Your task to perform on an android device: Do I have any events today? Image 0: 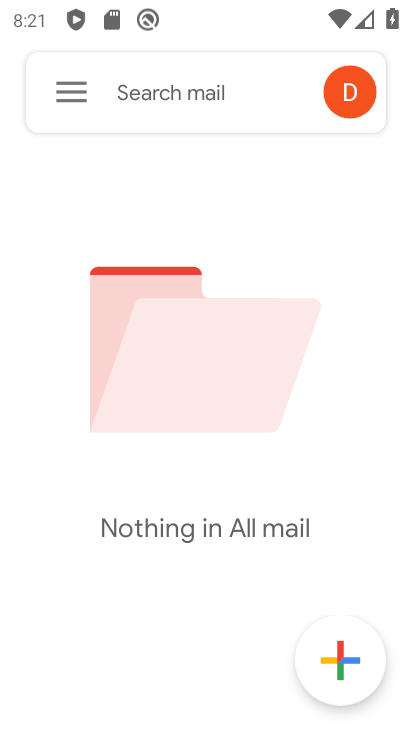
Step 0: press home button
Your task to perform on an android device: Do I have any events today? Image 1: 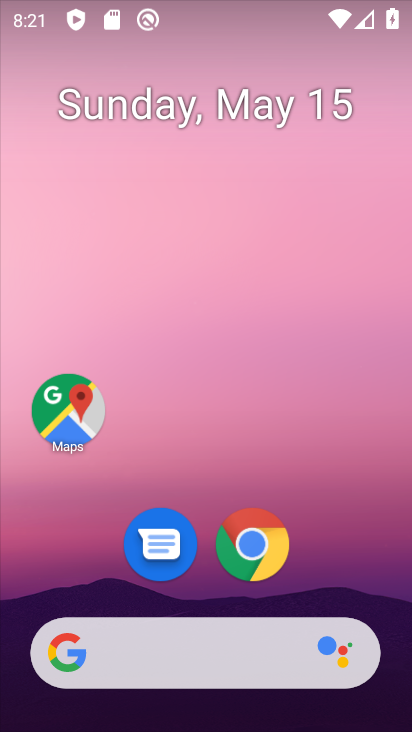
Step 1: drag from (215, 601) to (350, 156)
Your task to perform on an android device: Do I have any events today? Image 2: 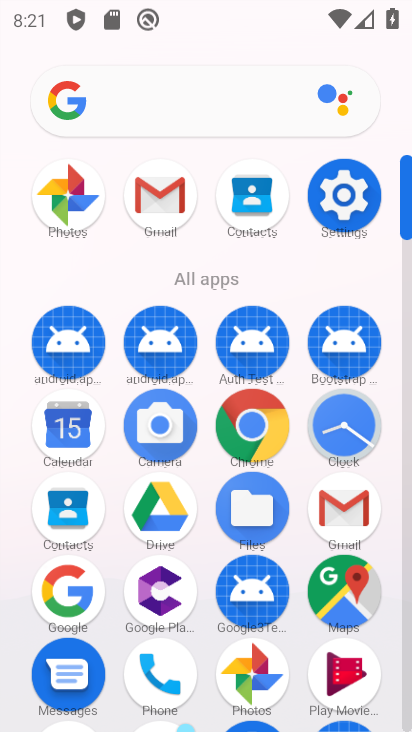
Step 2: click (64, 429)
Your task to perform on an android device: Do I have any events today? Image 3: 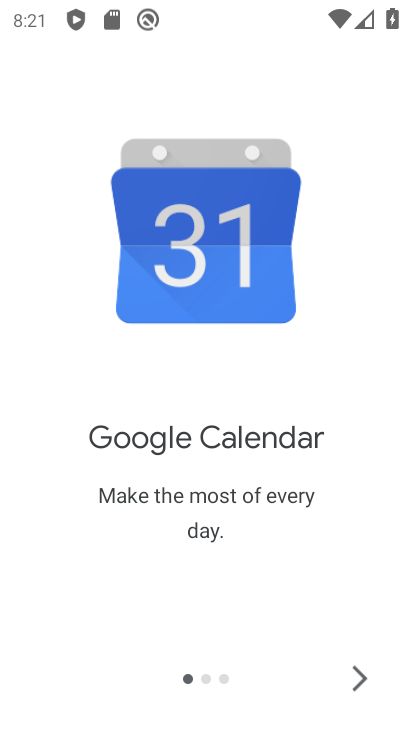
Step 3: click (355, 667)
Your task to perform on an android device: Do I have any events today? Image 4: 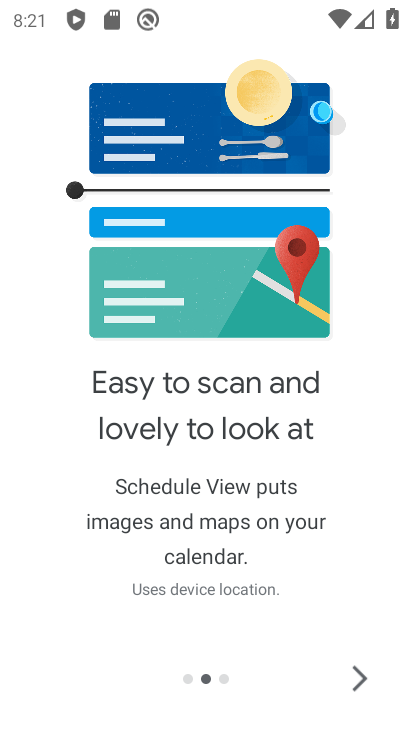
Step 4: click (355, 667)
Your task to perform on an android device: Do I have any events today? Image 5: 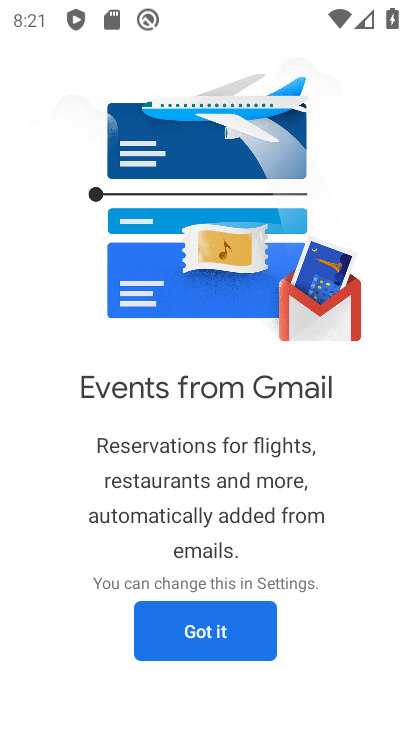
Step 5: click (216, 627)
Your task to perform on an android device: Do I have any events today? Image 6: 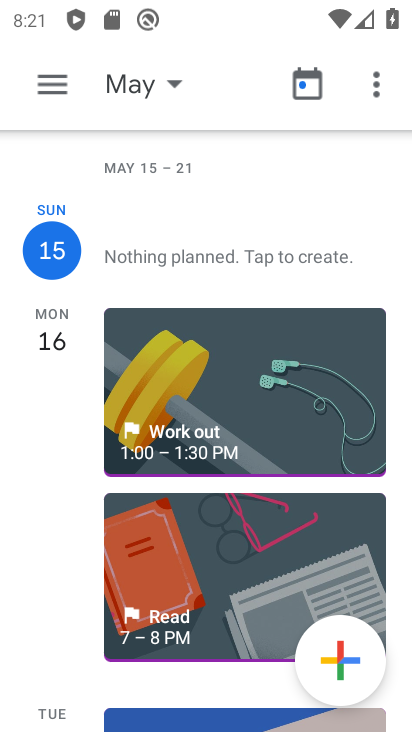
Step 6: click (153, 92)
Your task to perform on an android device: Do I have any events today? Image 7: 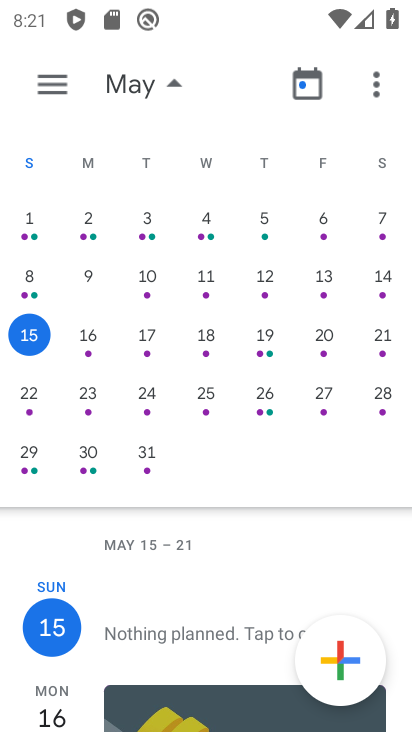
Step 7: click (34, 334)
Your task to perform on an android device: Do I have any events today? Image 8: 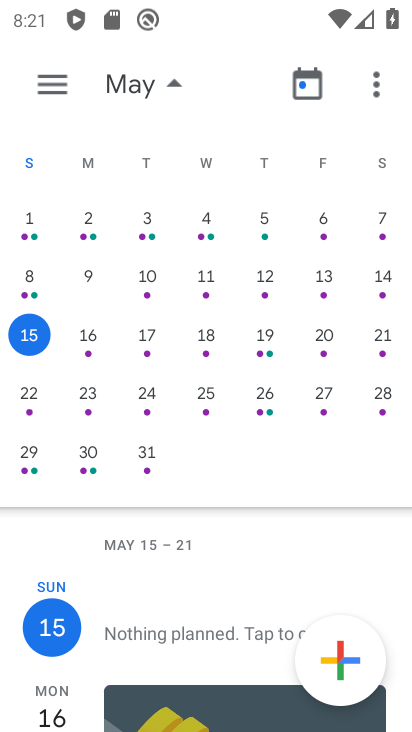
Step 8: click (37, 338)
Your task to perform on an android device: Do I have any events today? Image 9: 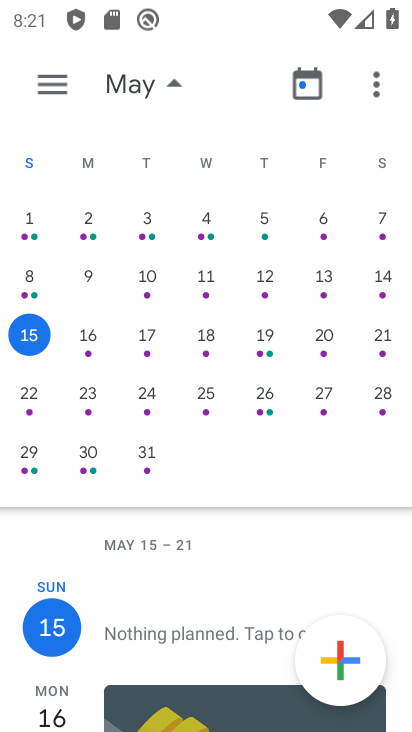
Step 9: task complete